Your task to perform on an android device: snooze an email in the gmail app Image 0: 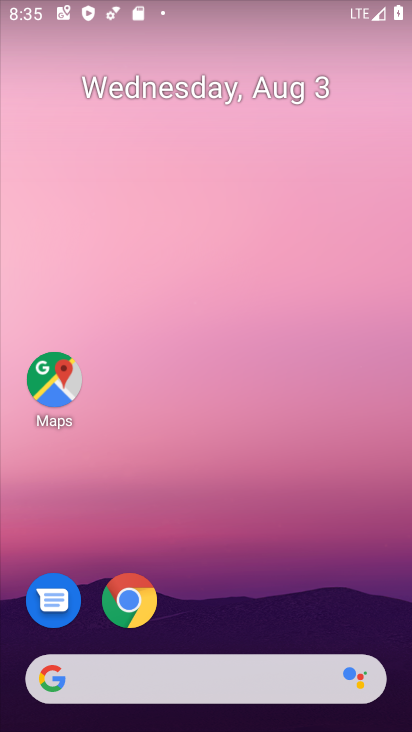
Step 0: drag from (201, 596) to (216, 28)
Your task to perform on an android device: snooze an email in the gmail app Image 1: 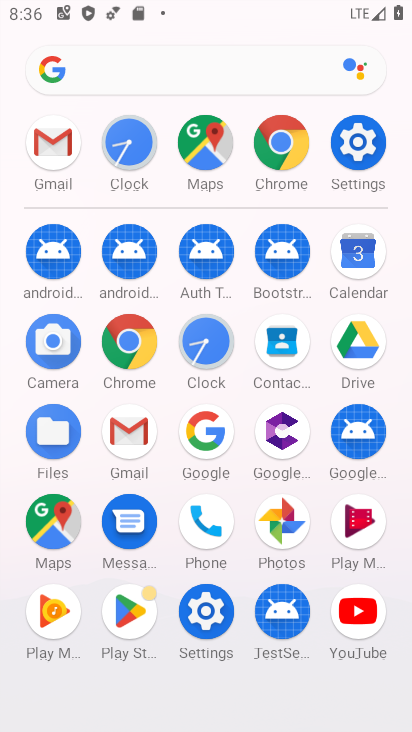
Step 1: click (125, 447)
Your task to perform on an android device: snooze an email in the gmail app Image 2: 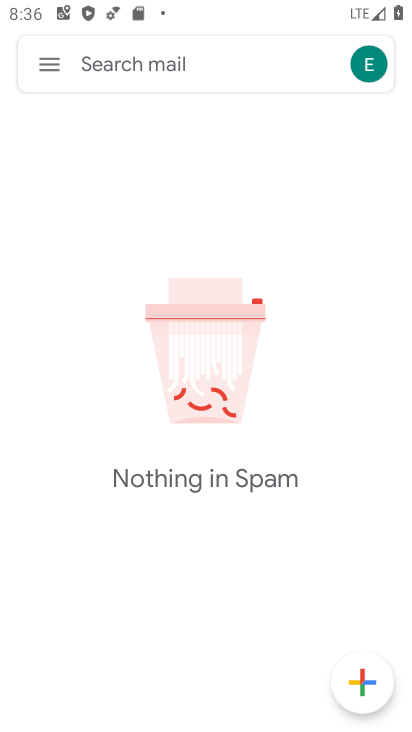
Step 2: click (45, 64)
Your task to perform on an android device: snooze an email in the gmail app Image 3: 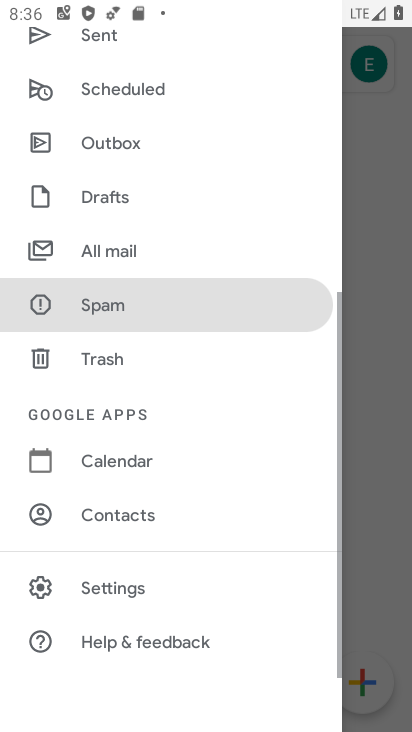
Step 3: drag from (146, 174) to (143, 720)
Your task to perform on an android device: snooze an email in the gmail app Image 4: 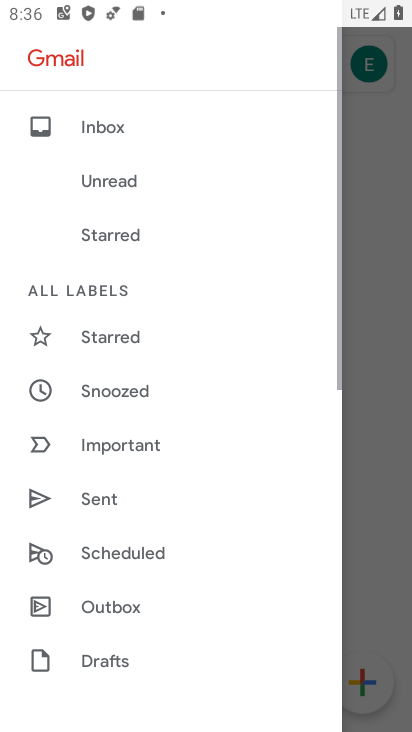
Step 4: click (112, 127)
Your task to perform on an android device: snooze an email in the gmail app Image 5: 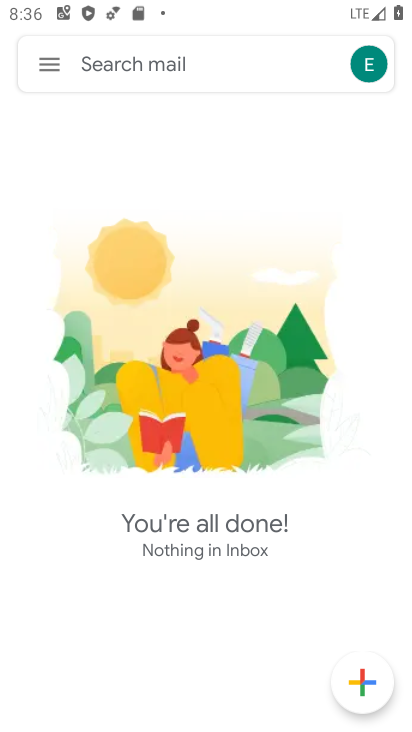
Step 5: task complete